Your task to perform on an android device: check storage Image 0: 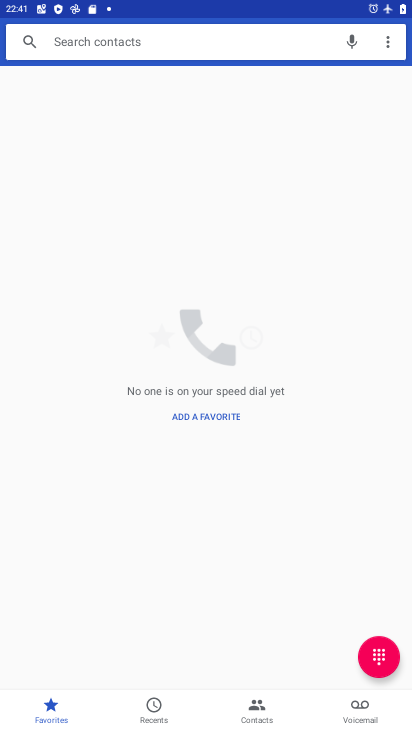
Step 0: press home button
Your task to perform on an android device: check storage Image 1: 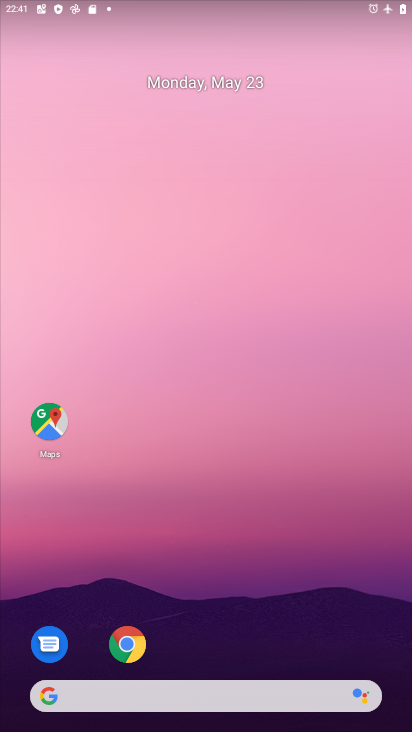
Step 1: drag from (189, 727) to (306, 120)
Your task to perform on an android device: check storage Image 2: 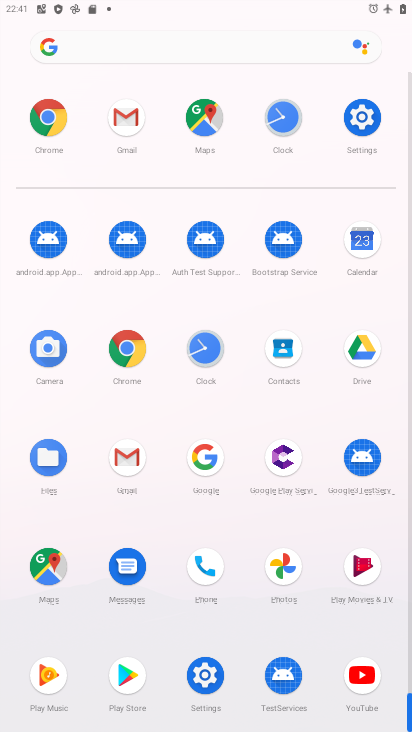
Step 2: click (346, 113)
Your task to perform on an android device: check storage Image 3: 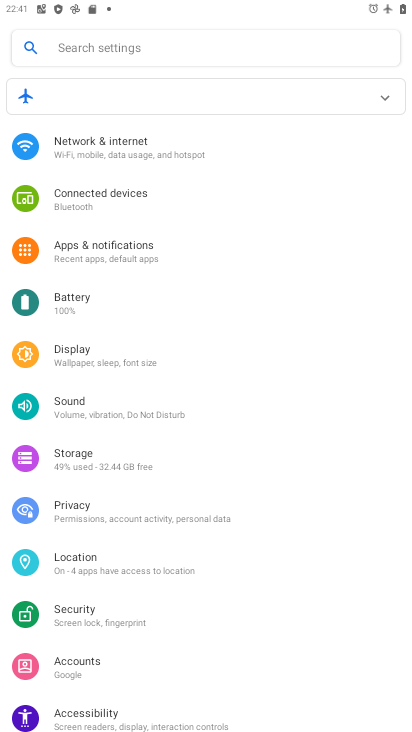
Step 3: click (99, 455)
Your task to perform on an android device: check storage Image 4: 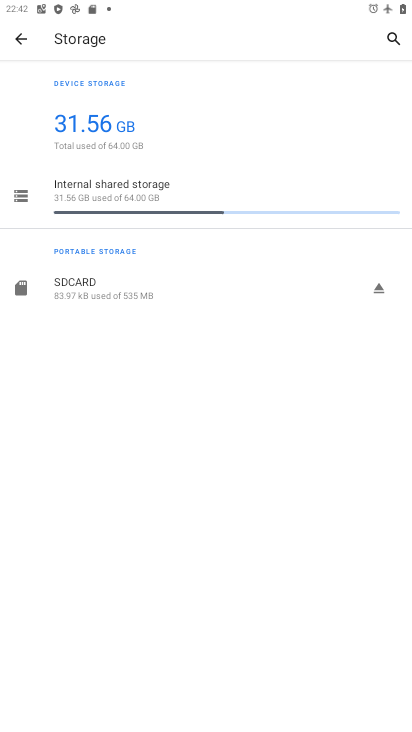
Step 4: task complete